Your task to perform on an android device: View the shopping cart on ebay. Search for "alienware aurora" on ebay, select the first entry, add it to the cart, then select checkout. Image 0: 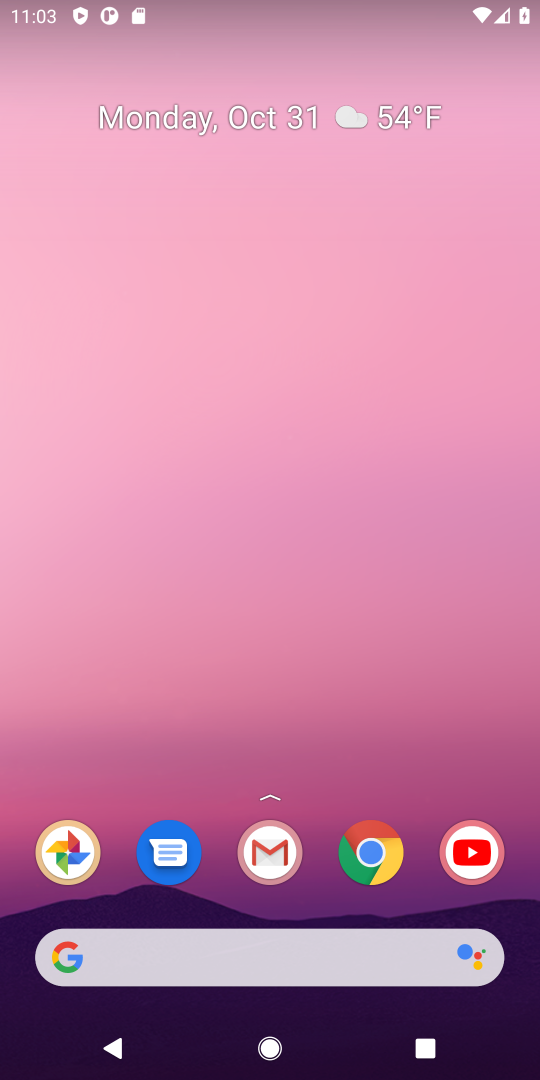
Step 0: click (375, 847)
Your task to perform on an android device: View the shopping cart on ebay. Search for "alienware aurora" on ebay, select the first entry, add it to the cart, then select checkout. Image 1: 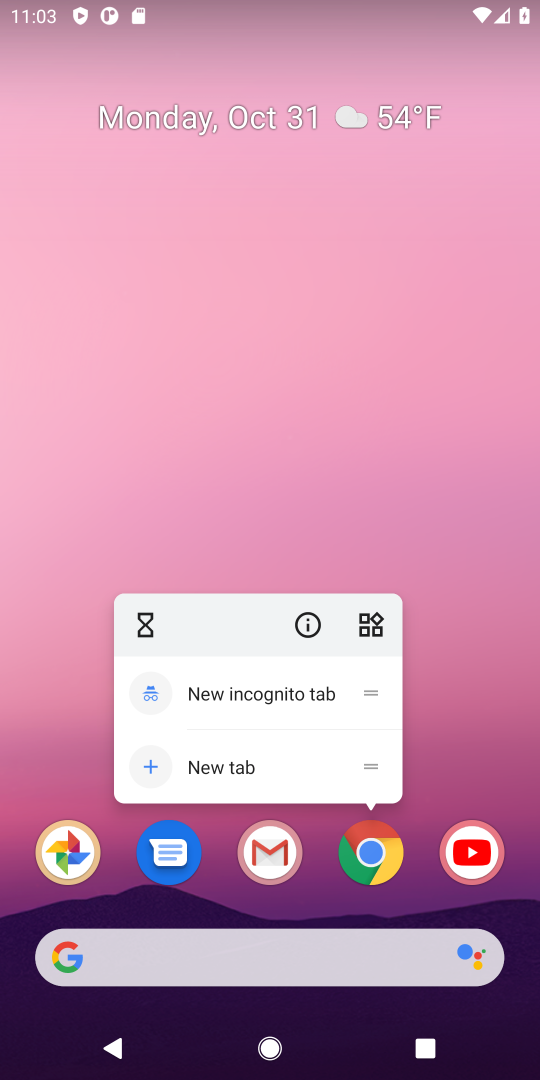
Step 1: click (373, 853)
Your task to perform on an android device: View the shopping cart on ebay. Search for "alienware aurora" on ebay, select the first entry, add it to the cart, then select checkout. Image 2: 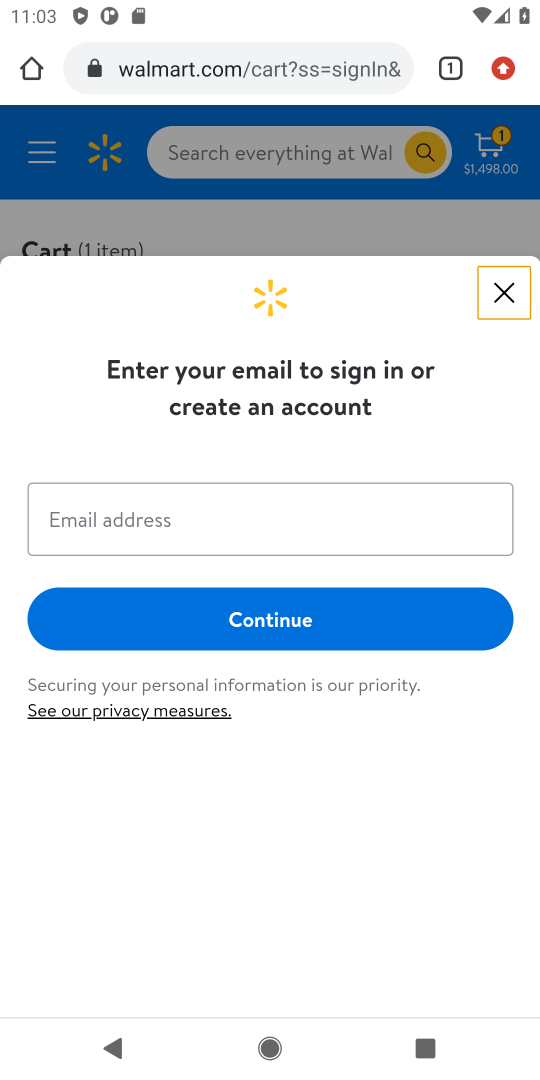
Step 2: click (195, 65)
Your task to perform on an android device: View the shopping cart on ebay. Search for "alienware aurora" on ebay, select the first entry, add it to the cart, then select checkout. Image 3: 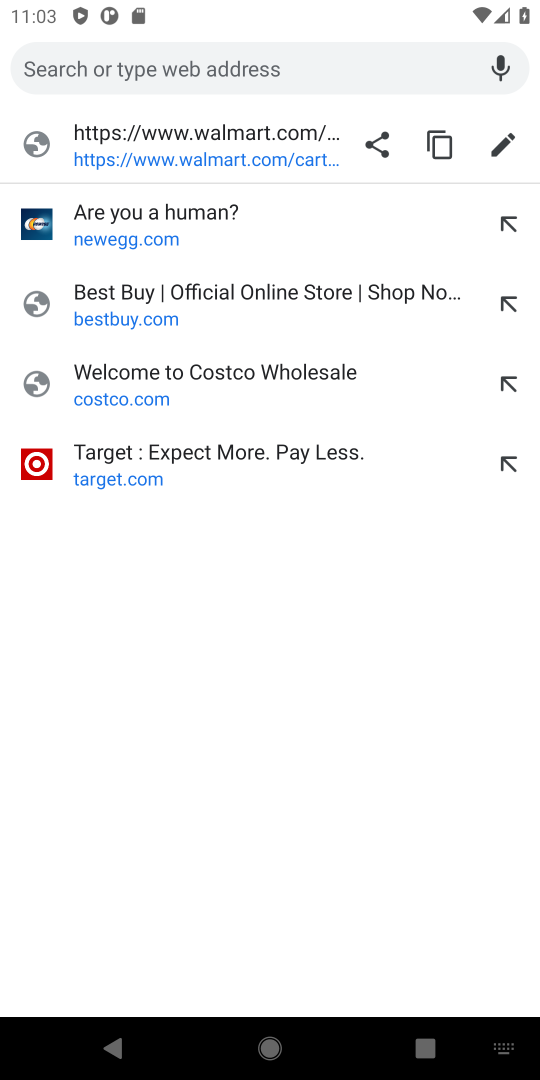
Step 3: type "ebay"
Your task to perform on an android device: View the shopping cart on ebay. Search for "alienware aurora" on ebay, select the first entry, add it to the cart, then select checkout. Image 4: 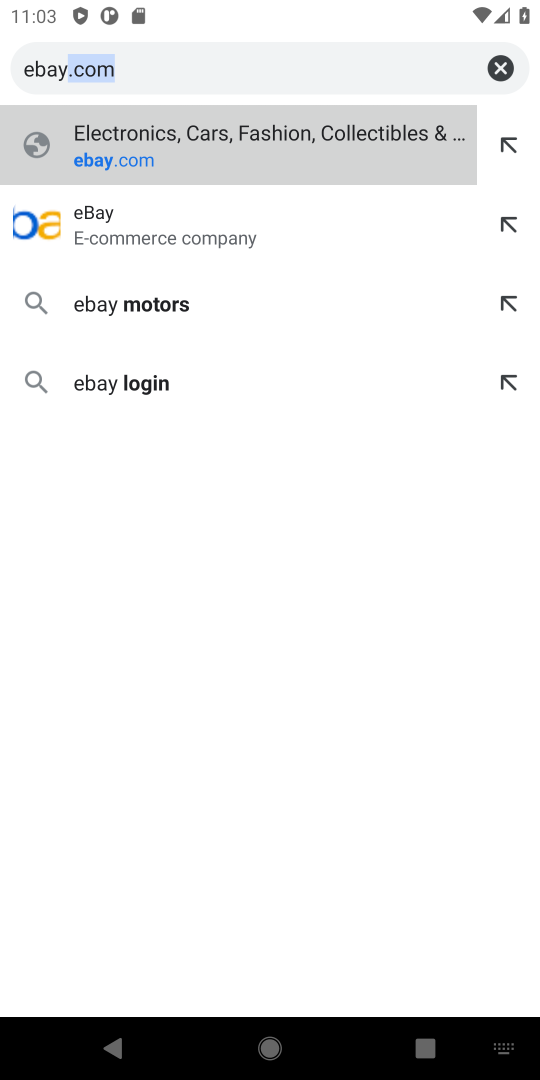
Step 4: type ""
Your task to perform on an android device: View the shopping cart on ebay. Search for "alienware aurora" on ebay, select the first entry, add it to the cart, then select checkout. Image 5: 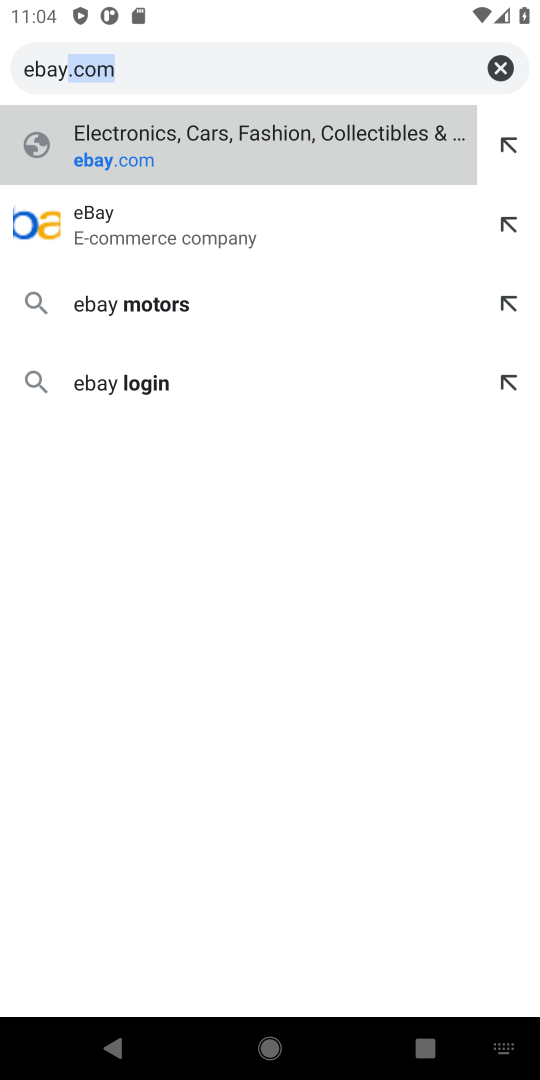
Step 5: press enter
Your task to perform on an android device: View the shopping cart on ebay. Search for "alienware aurora" on ebay, select the first entry, add it to the cart, then select checkout. Image 6: 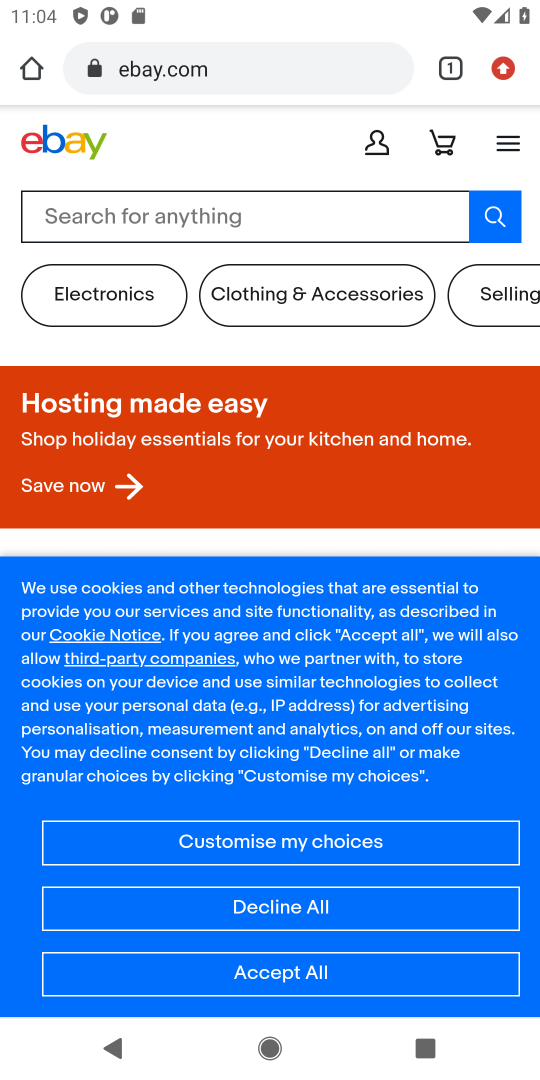
Step 6: click (375, 976)
Your task to perform on an android device: View the shopping cart on ebay. Search for "alienware aurora" on ebay, select the first entry, add it to the cart, then select checkout. Image 7: 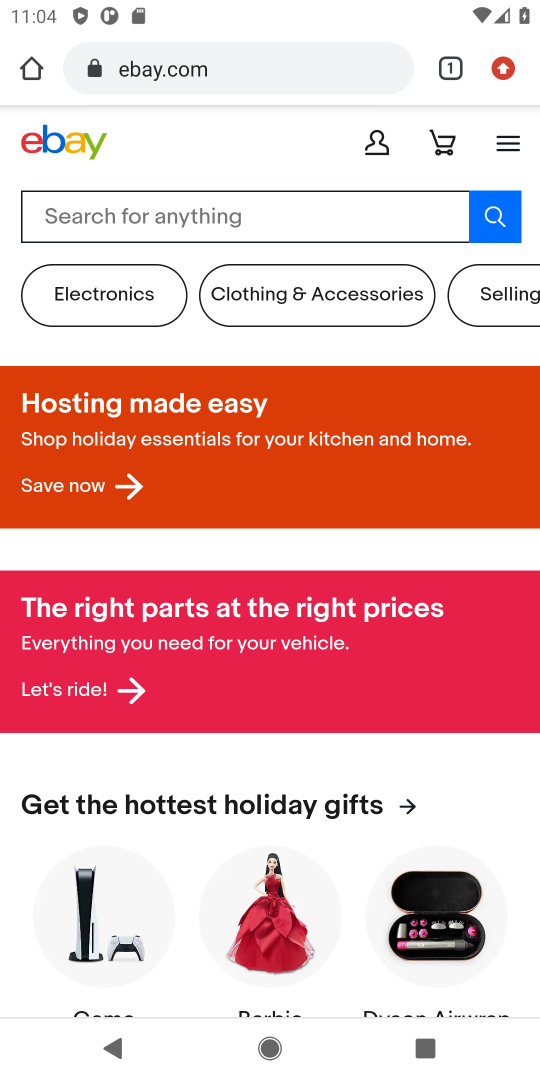
Step 7: click (316, 218)
Your task to perform on an android device: View the shopping cart on ebay. Search for "alienware aurora" on ebay, select the first entry, add it to the cart, then select checkout. Image 8: 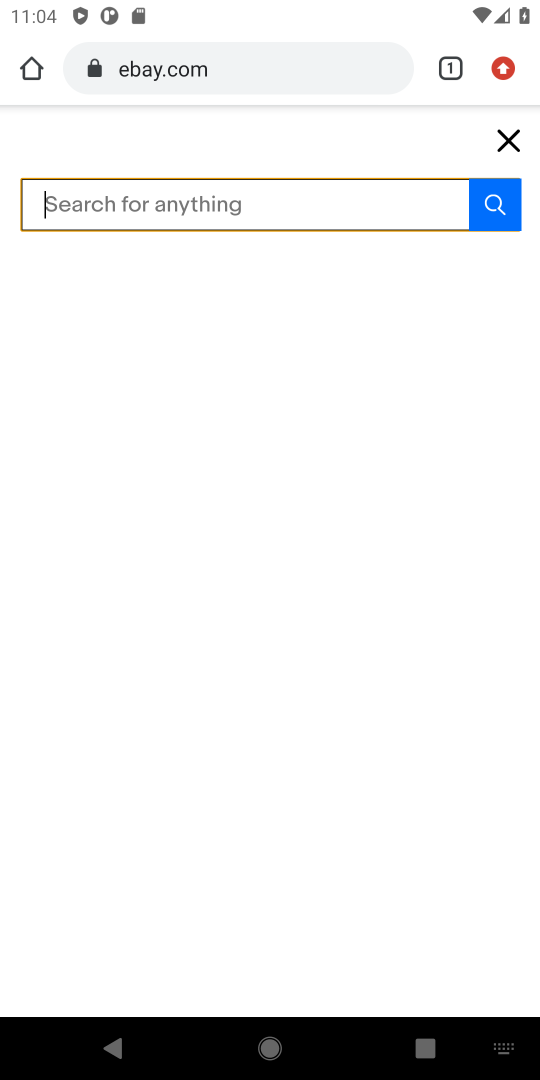
Step 8: type "alienware aurora"
Your task to perform on an android device: View the shopping cart on ebay. Search for "alienware aurora" on ebay, select the first entry, add it to the cart, then select checkout. Image 9: 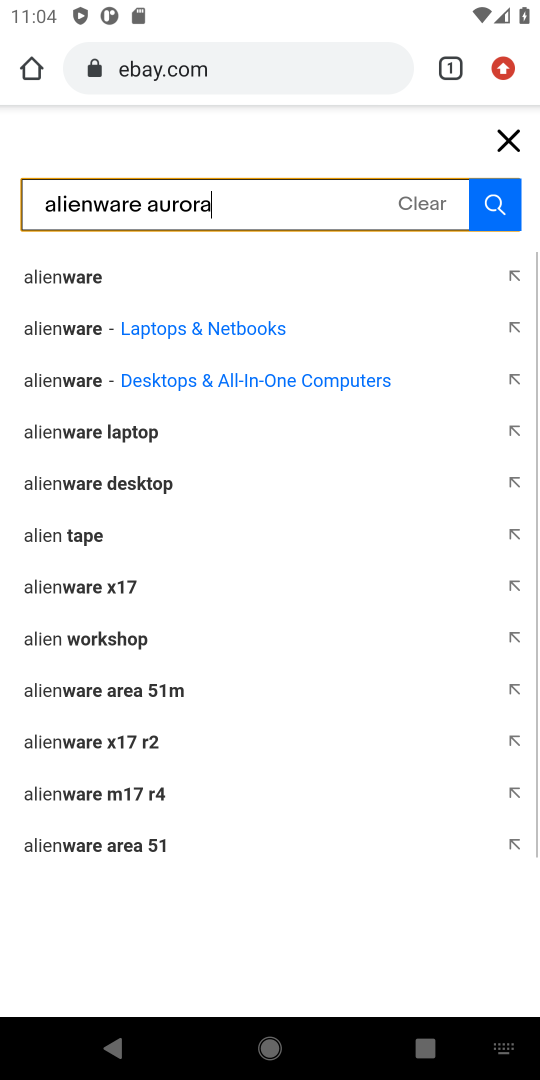
Step 9: type ""
Your task to perform on an android device: View the shopping cart on ebay. Search for "alienware aurora" on ebay, select the first entry, add it to the cart, then select checkout. Image 10: 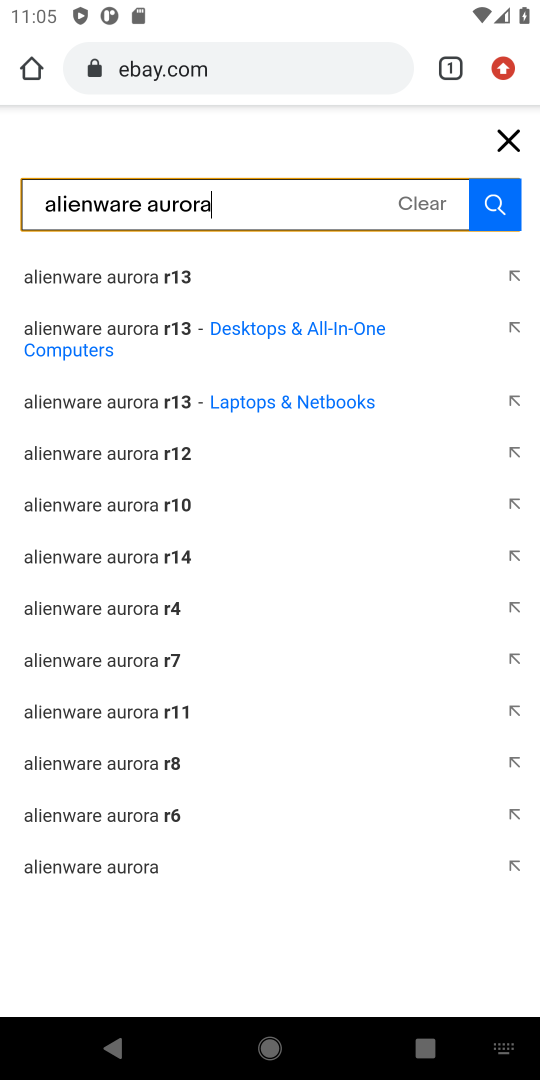
Step 10: press enter
Your task to perform on an android device: View the shopping cart on ebay. Search for "alienware aurora" on ebay, select the first entry, add it to the cart, then select checkout. Image 11: 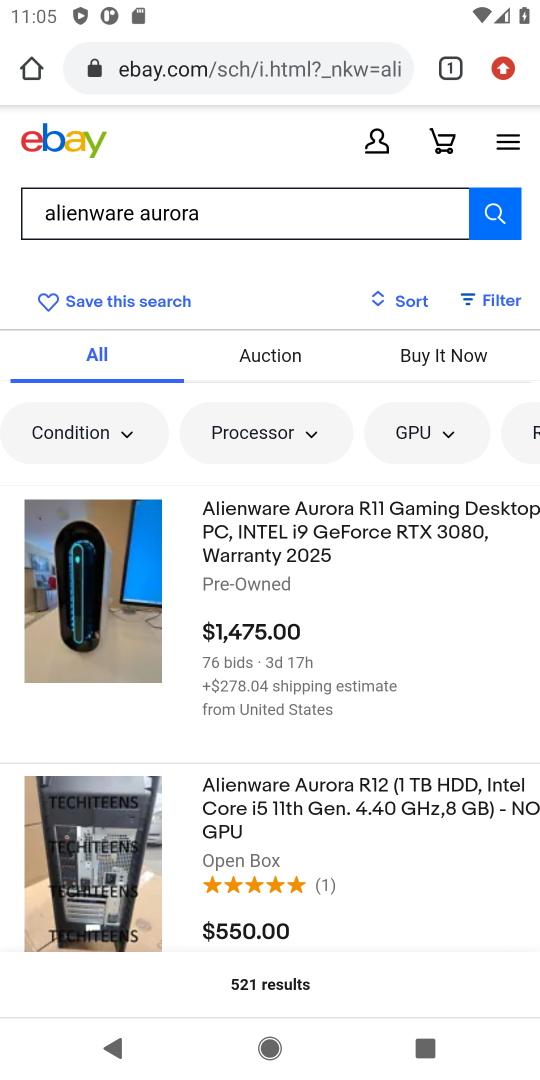
Step 11: click (326, 522)
Your task to perform on an android device: View the shopping cart on ebay. Search for "alienware aurora" on ebay, select the first entry, add it to the cart, then select checkout. Image 12: 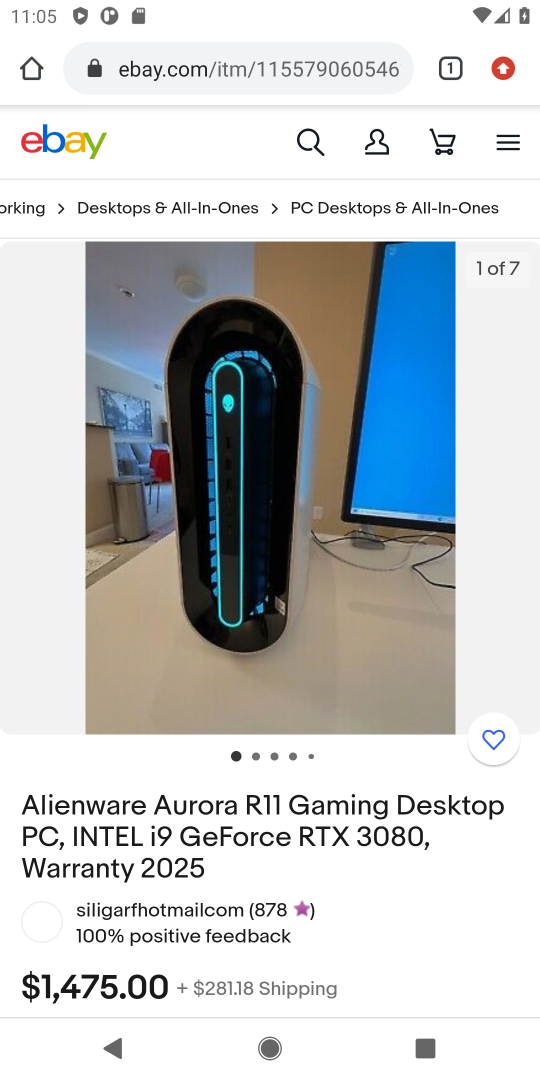
Step 12: drag from (295, 876) to (302, 356)
Your task to perform on an android device: View the shopping cart on ebay. Search for "alienware aurora" on ebay, select the first entry, add it to the cart, then select checkout. Image 13: 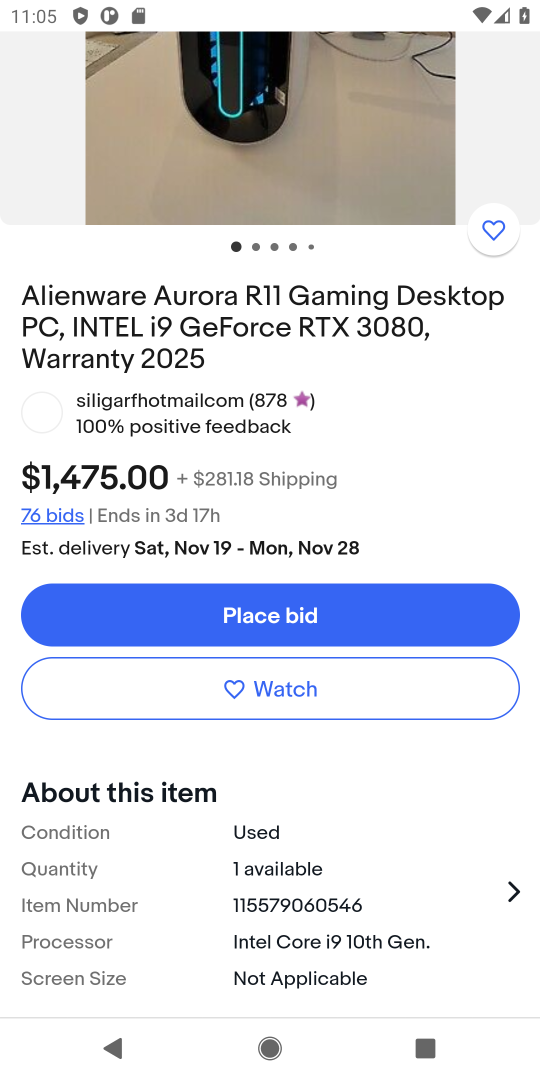
Step 13: click (326, 609)
Your task to perform on an android device: View the shopping cart on ebay. Search for "alienware aurora" on ebay, select the first entry, add it to the cart, then select checkout. Image 14: 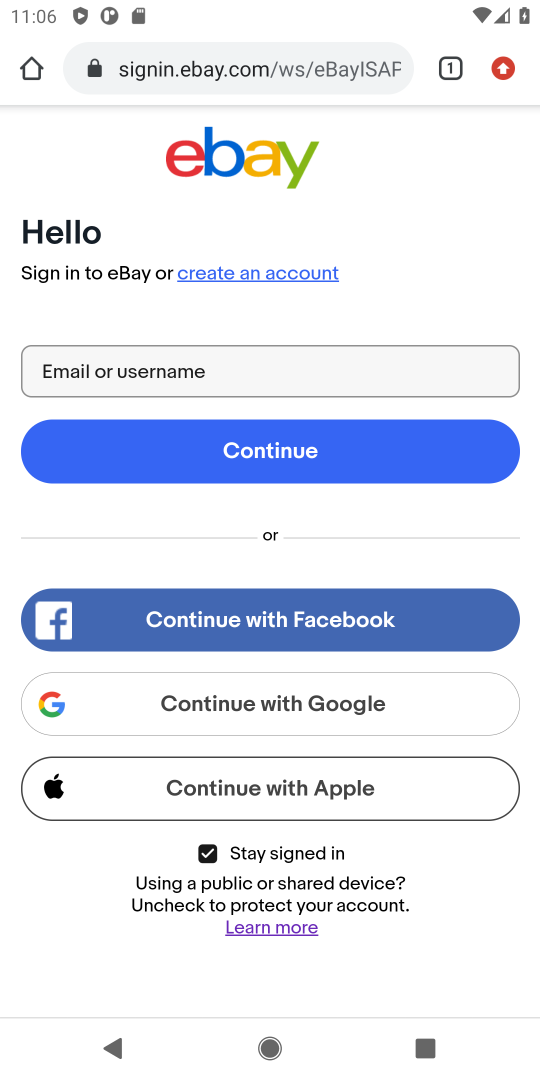
Step 14: task complete